Your task to perform on an android device: set default search engine in the chrome app Image 0: 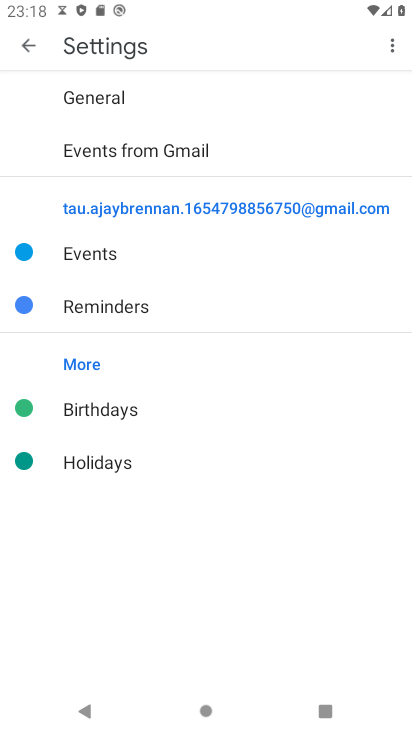
Step 0: press home button
Your task to perform on an android device: set default search engine in the chrome app Image 1: 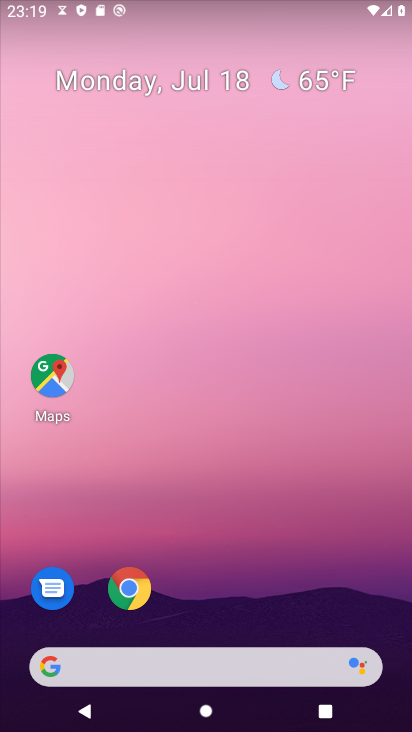
Step 1: click (130, 578)
Your task to perform on an android device: set default search engine in the chrome app Image 2: 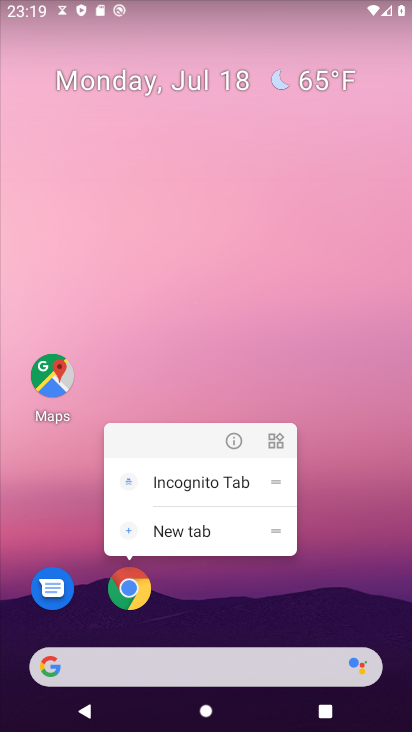
Step 2: click (125, 578)
Your task to perform on an android device: set default search engine in the chrome app Image 3: 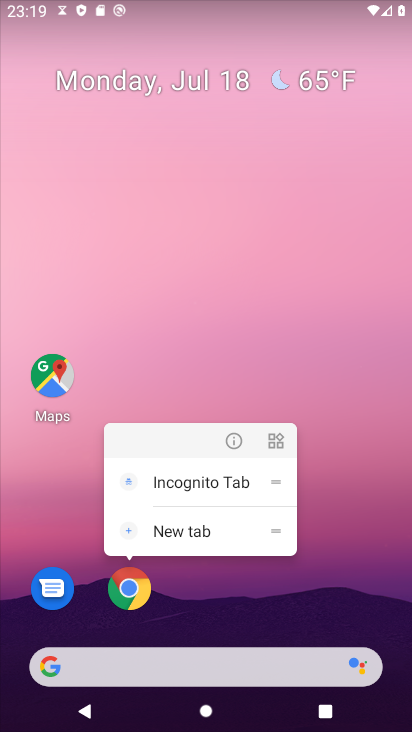
Step 3: click (125, 578)
Your task to perform on an android device: set default search engine in the chrome app Image 4: 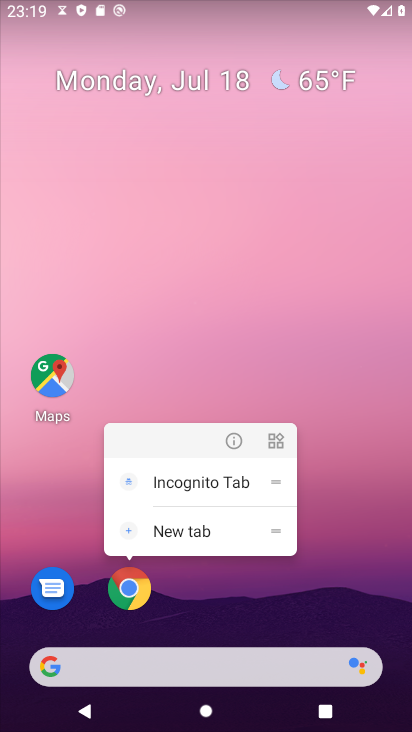
Step 4: click (127, 605)
Your task to perform on an android device: set default search engine in the chrome app Image 5: 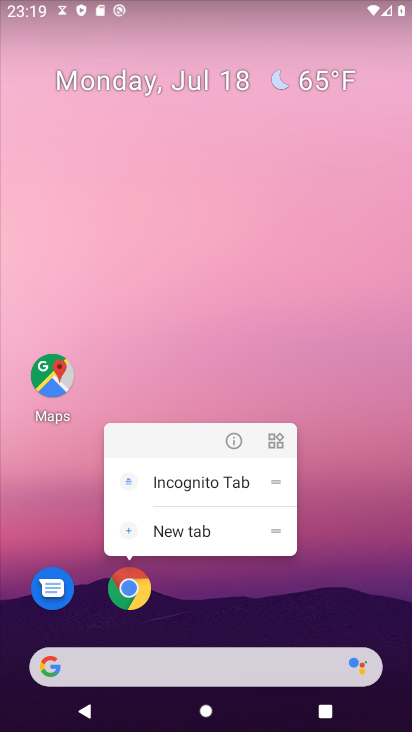
Step 5: click (135, 596)
Your task to perform on an android device: set default search engine in the chrome app Image 6: 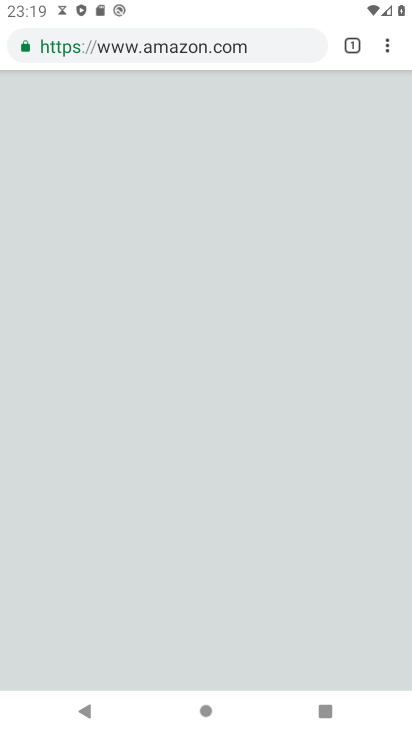
Step 6: drag from (382, 42) to (245, 547)
Your task to perform on an android device: set default search engine in the chrome app Image 7: 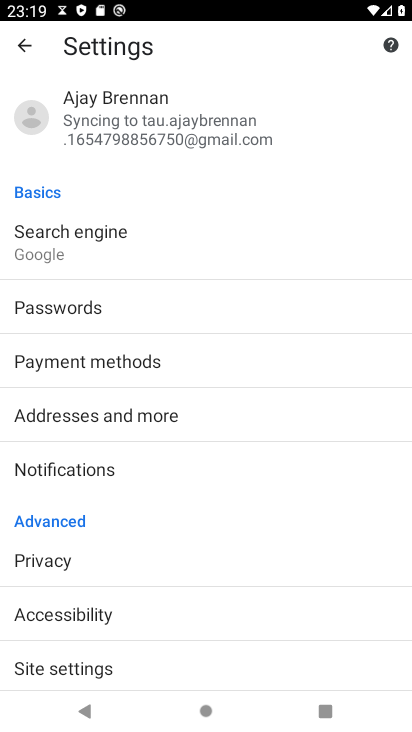
Step 7: click (79, 232)
Your task to perform on an android device: set default search engine in the chrome app Image 8: 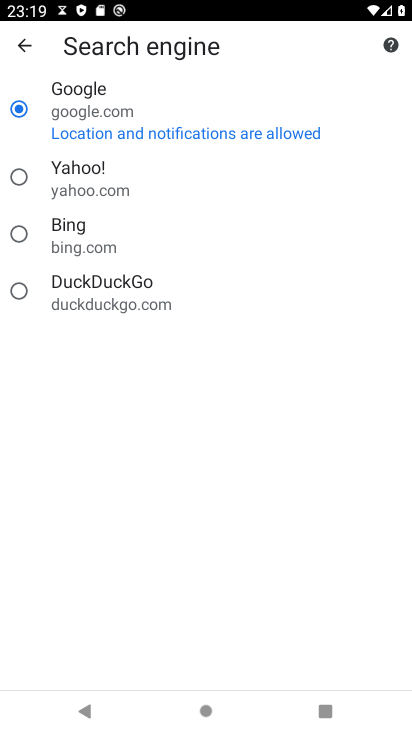
Step 8: task complete